Your task to perform on an android device: Go to Google maps Image 0: 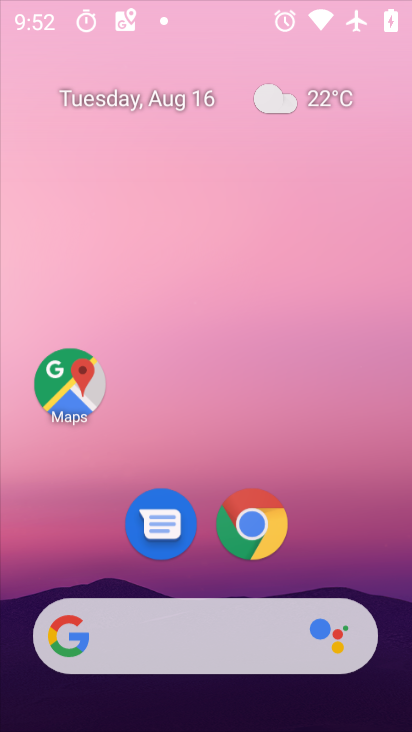
Step 0: drag from (328, 460) to (340, 79)
Your task to perform on an android device: Go to Google maps Image 1: 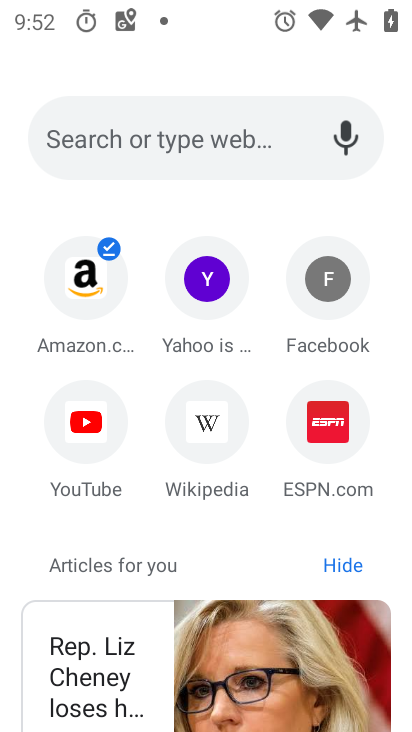
Step 1: press home button
Your task to perform on an android device: Go to Google maps Image 2: 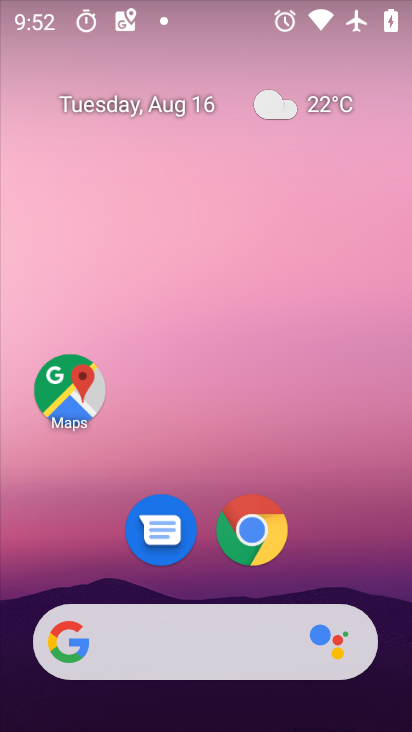
Step 2: drag from (339, 499) to (337, 143)
Your task to perform on an android device: Go to Google maps Image 3: 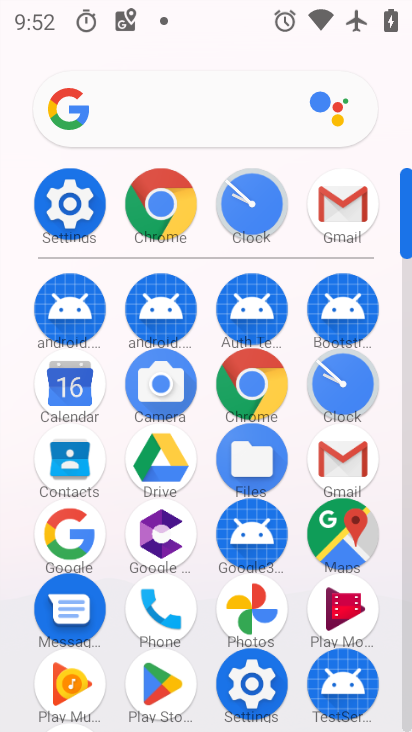
Step 3: click (366, 533)
Your task to perform on an android device: Go to Google maps Image 4: 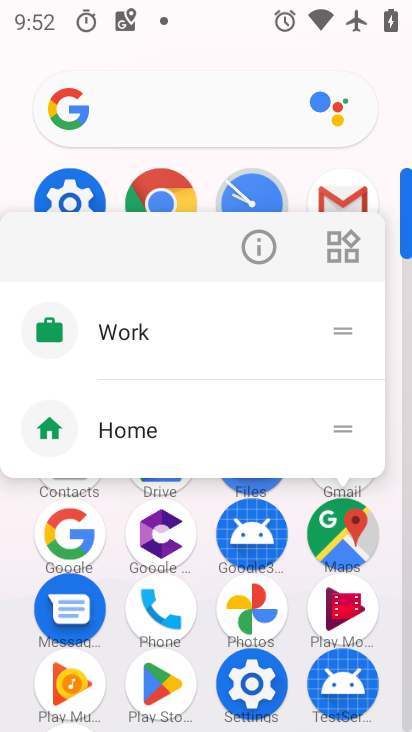
Step 4: click (353, 537)
Your task to perform on an android device: Go to Google maps Image 5: 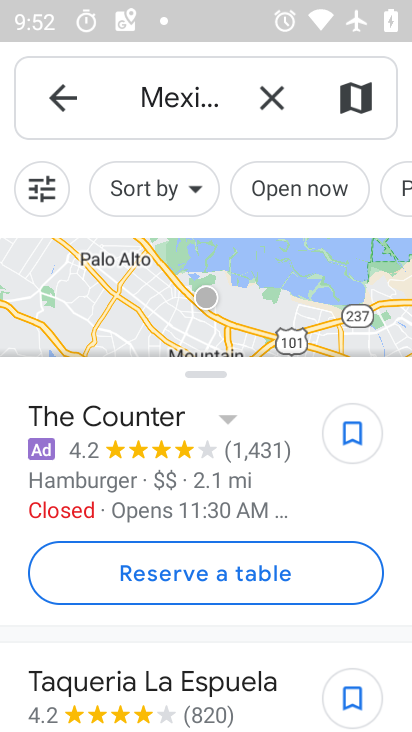
Step 5: task complete